Your task to perform on an android device: empty trash in the gmail app Image 0: 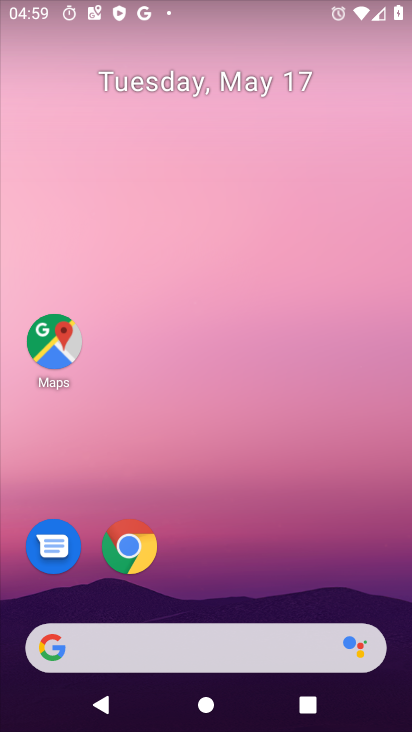
Step 0: drag from (389, 621) to (377, 347)
Your task to perform on an android device: empty trash in the gmail app Image 1: 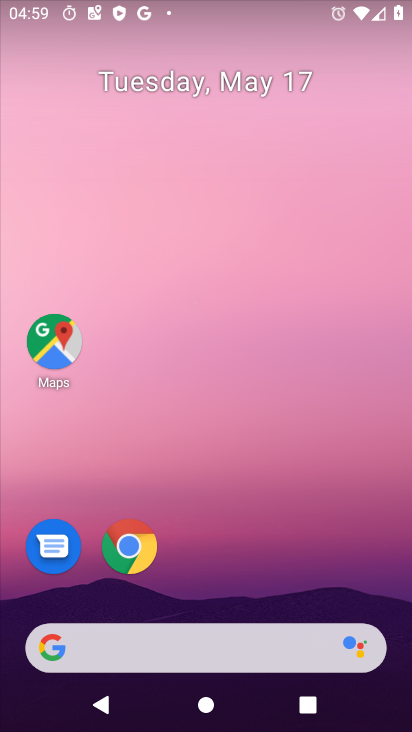
Step 1: drag from (404, 529) to (392, 338)
Your task to perform on an android device: empty trash in the gmail app Image 2: 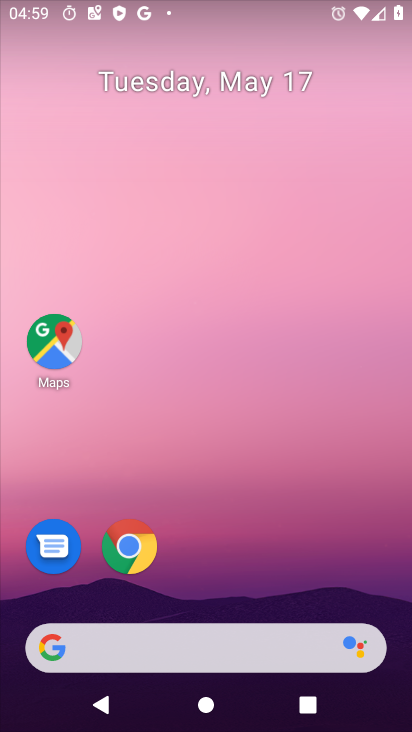
Step 2: drag from (400, 573) to (381, 327)
Your task to perform on an android device: empty trash in the gmail app Image 3: 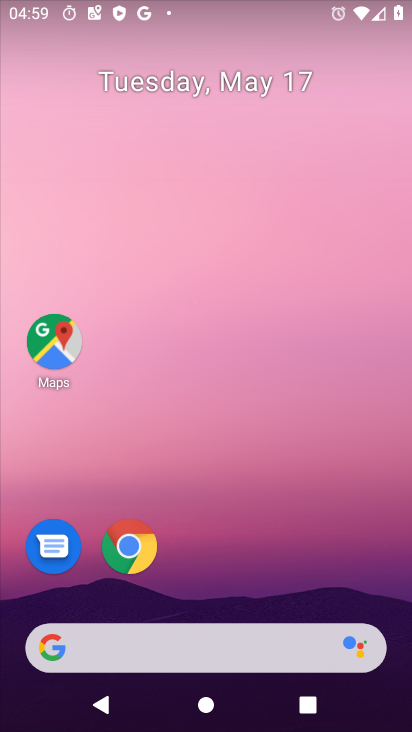
Step 3: drag from (392, 571) to (378, 381)
Your task to perform on an android device: empty trash in the gmail app Image 4: 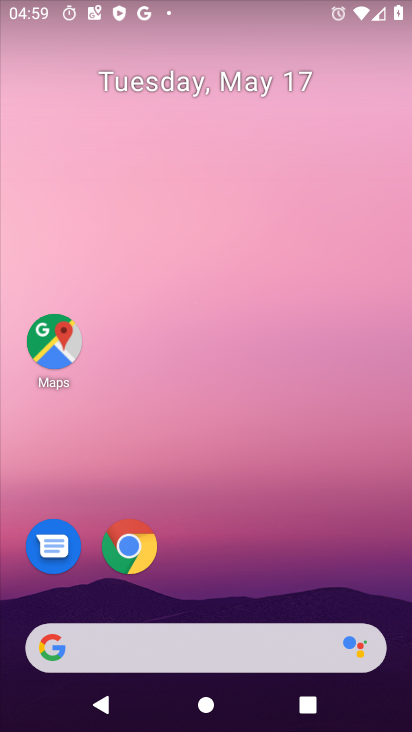
Step 4: click (398, 337)
Your task to perform on an android device: empty trash in the gmail app Image 5: 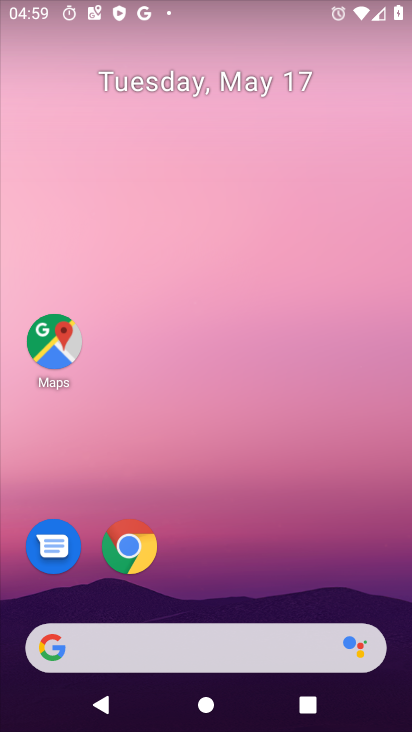
Step 5: drag from (392, 696) to (390, 223)
Your task to perform on an android device: empty trash in the gmail app Image 6: 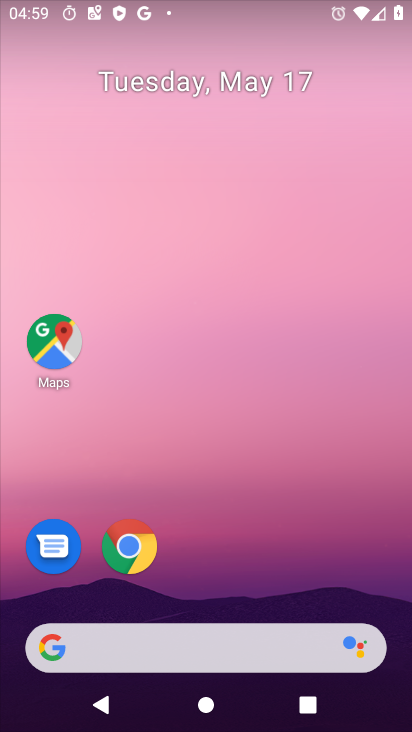
Step 6: drag from (394, 685) to (348, 249)
Your task to perform on an android device: empty trash in the gmail app Image 7: 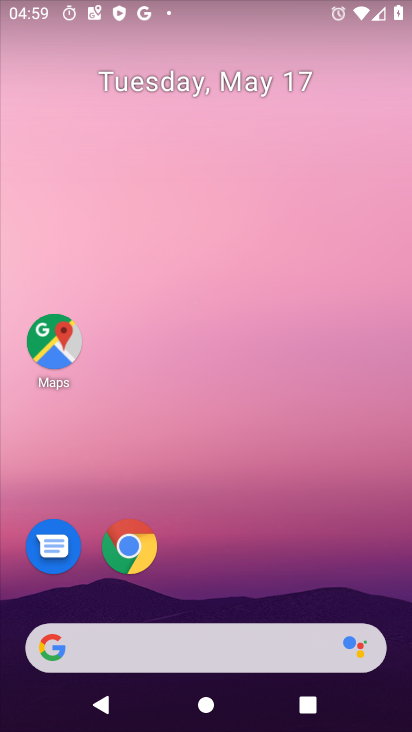
Step 7: click (387, 132)
Your task to perform on an android device: empty trash in the gmail app Image 8: 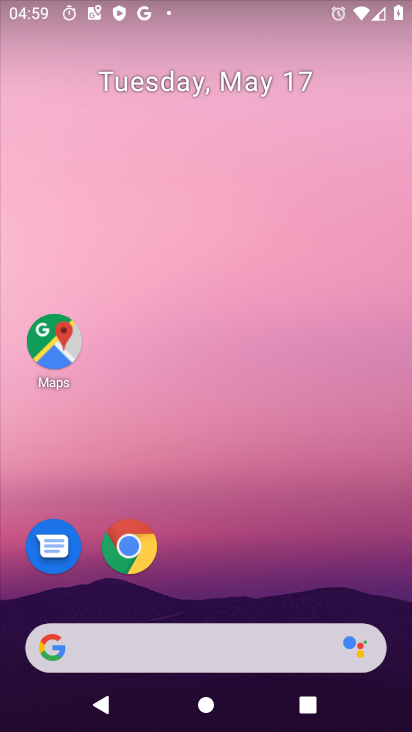
Step 8: drag from (378, 611) to (335, 242)
Your task to perform on an android device: empty trash in the gmail app Image 9: 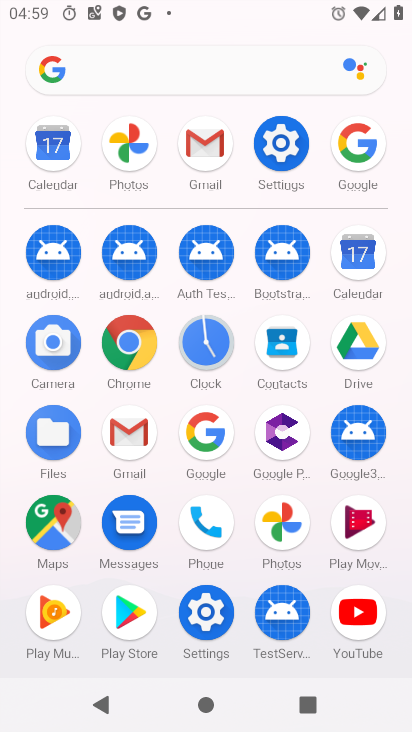
Step 9: click (187, 145)
Your task to perform on an android device: empty trash in the gmail app Image 10: 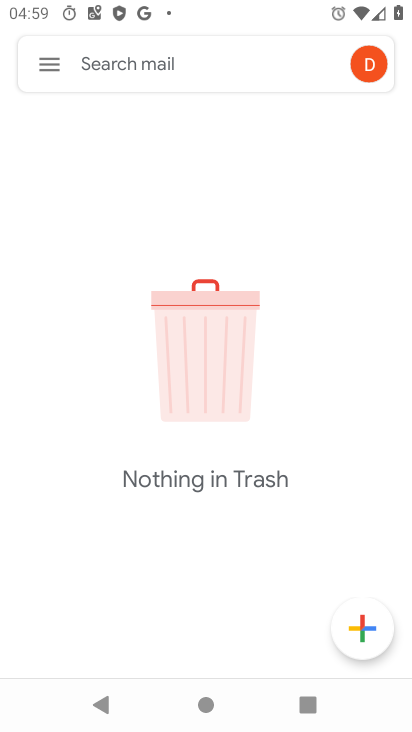
Step 10: click (50, 66)
Your task to perform on an android device: empty trash in the gmail app Image 11: 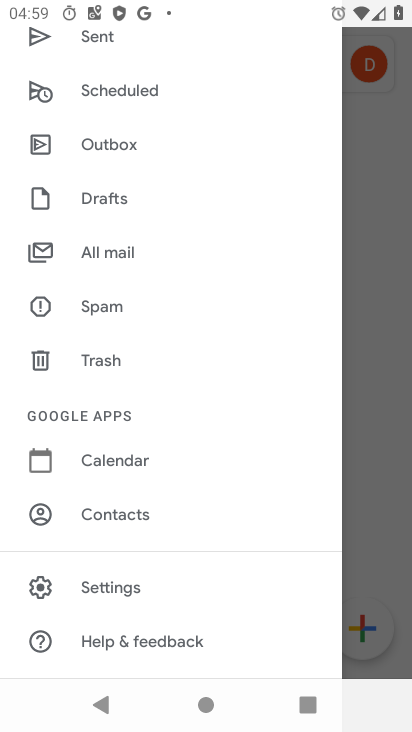
Step 11: click (100, 359)
Your task to perform on an android device: empty trash in the gmail app Image 12: 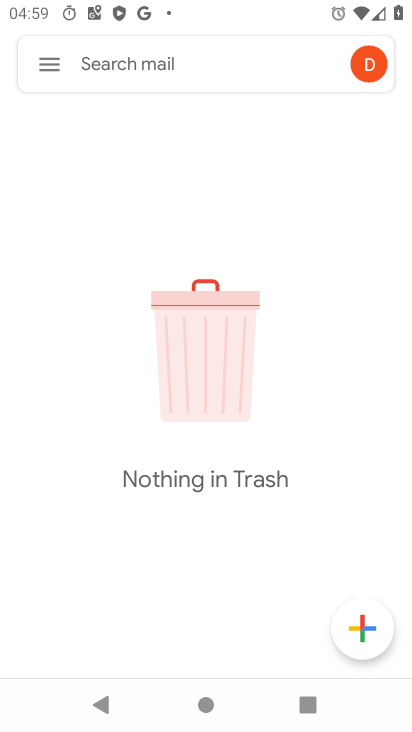
Step 12: task complete